Your task to perform on an android device: open a new tab in the chrome app Image 0: 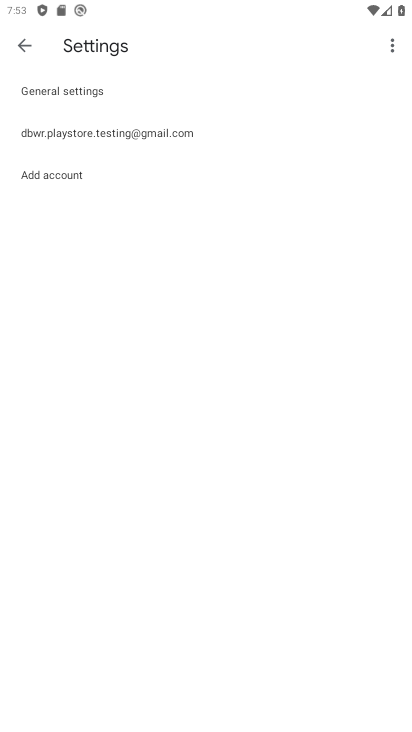
Step 0: press home button
Your task to perform on an android device: open a new tab in the chrome app Image 1: 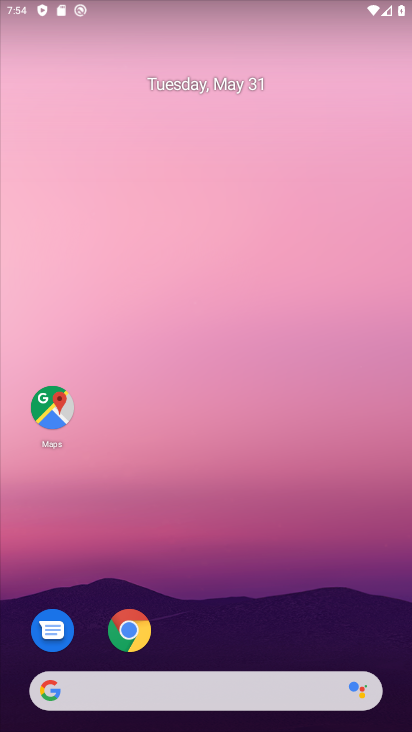
Step 1: click (131, 627)
Your task to perform on an android device: open a new tab in the chrome app Image 2: 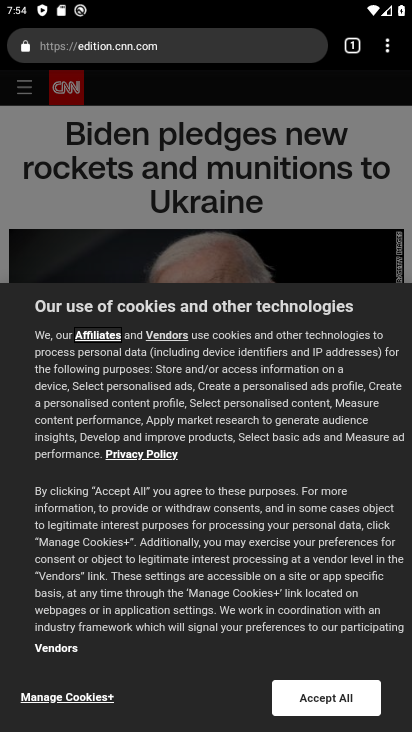
Step 2: click (350, 44)
Your task to perform on an android device: open a new tab in the chrome app Image 3: 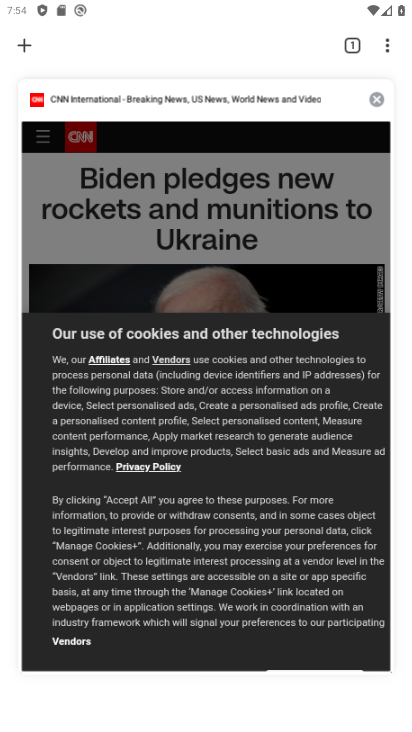
Step 3: click (23, 45)
Your task to perform on an android device: open a new tab in the chrome app Image 4: 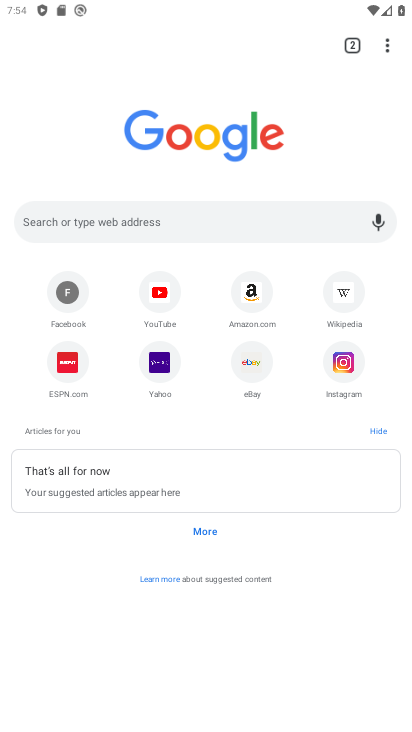
Step 4: task complete